Your task to perform on an android device: Open calendar and show me the fourth week of next month Image 0: 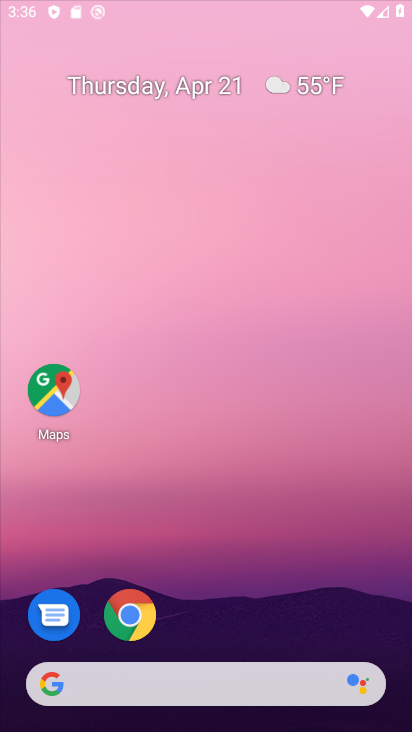
Step 0: drag from (212, 1) to (257, 4)
Your task to perform on an android device: Open calendar and show me the fourth week of next month Image 1: 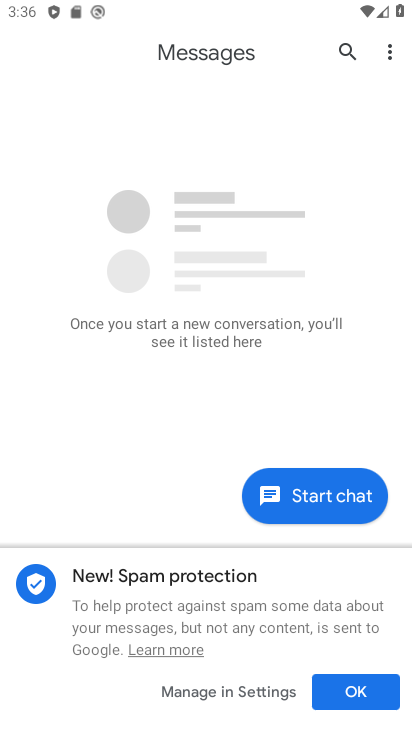
Step 1: press back button
Your task to perform on an android device: Open calendar and show me the fourth week of next month Image 2: 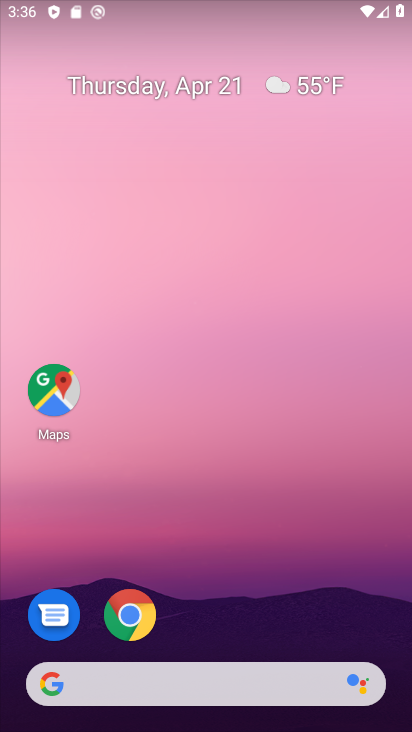
Step 2: drag from (308, 561) to (183, 57)
Your task to perform on an android device: Open calendar and show me the fourth week of next month Image 3: 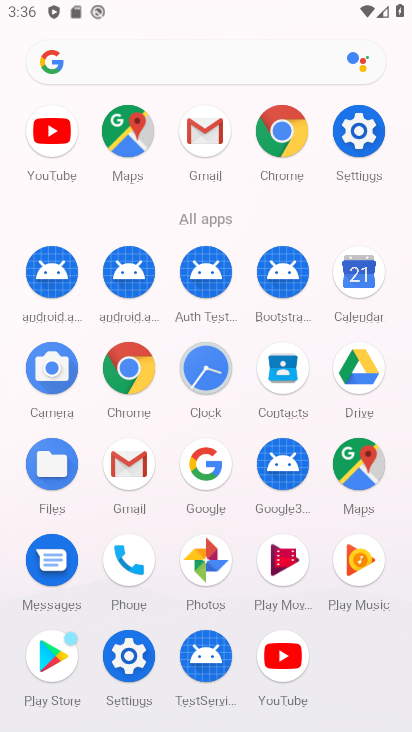
Step 3: click (362, 272)
Your task to perform on an android device: Open calendar and show me the fourth week of next month Image 4: 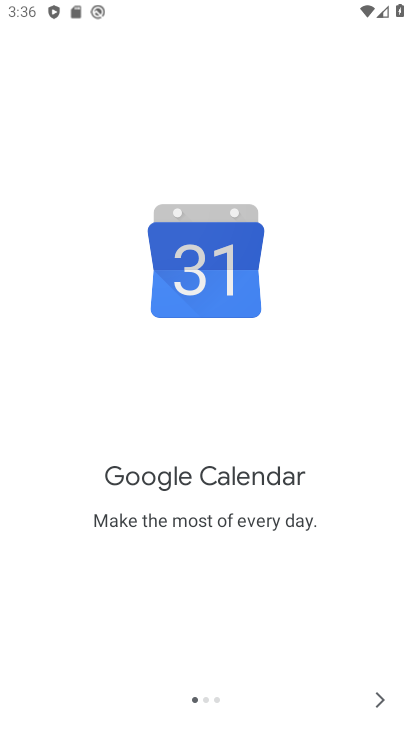
Step 4: click (394, 691)
Your task to perform on an android device: Open calendar and show me the fourth week of next month Image 5: 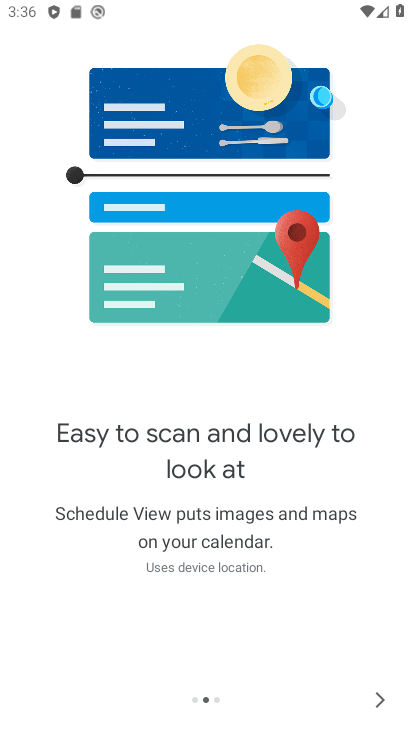
Step 5: click (391, 693)
Your task to perform on an android device: Open calendar and show me the fourth week of next month Image 6: 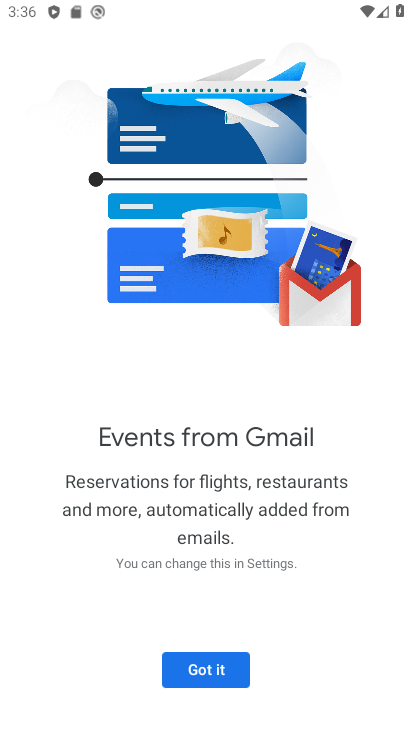
Step 6: click (212, 676)
Your task to perform on an android device: Open calendar and show me the fourth week of next month Image 7: 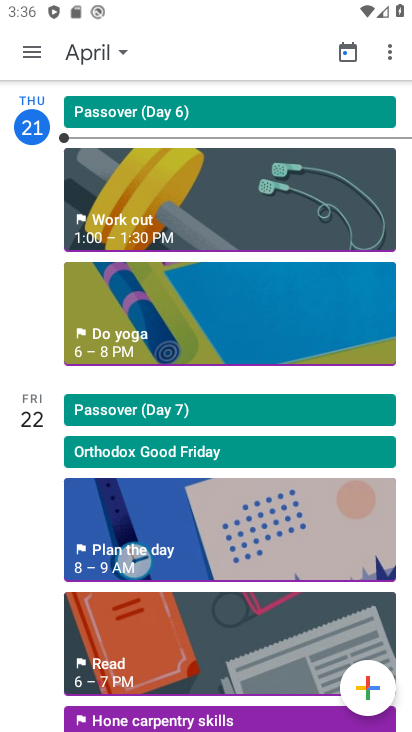
Step 7: click (84, 68)
Your task to perform on an android device: Open calendar and show me the fourth week of next month Image 8: 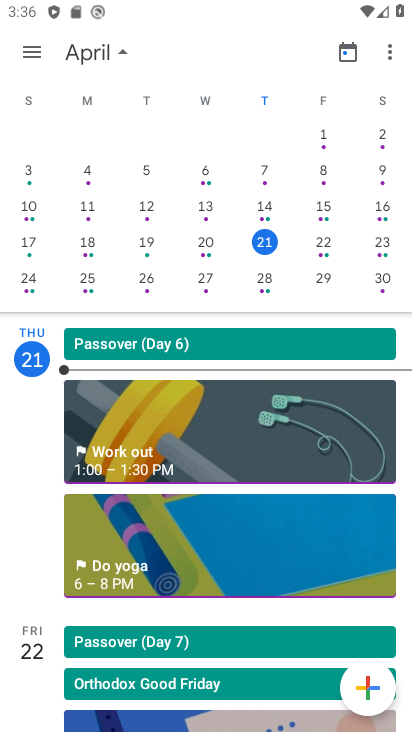
Step 8: drag from (248, 187) to (3, 108)
Your task to perform on an android device: Open calendar and show me the fourth week of next month Image 9: 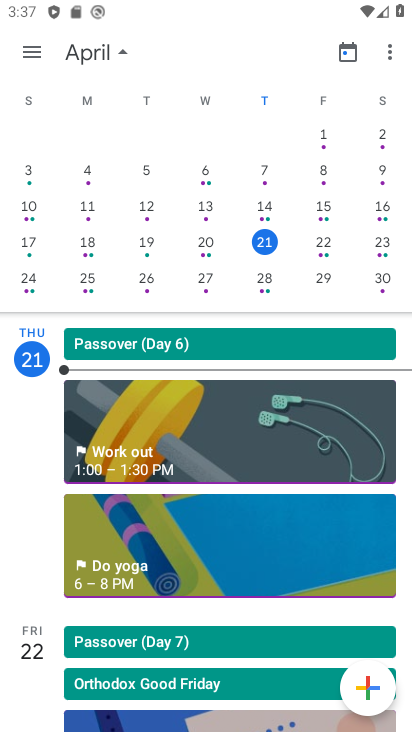
Step 9: drag from (312, 192) to (9, 145)
Your task to perform on an android device: Open calendar and show me the fourth week of next month Image 10: 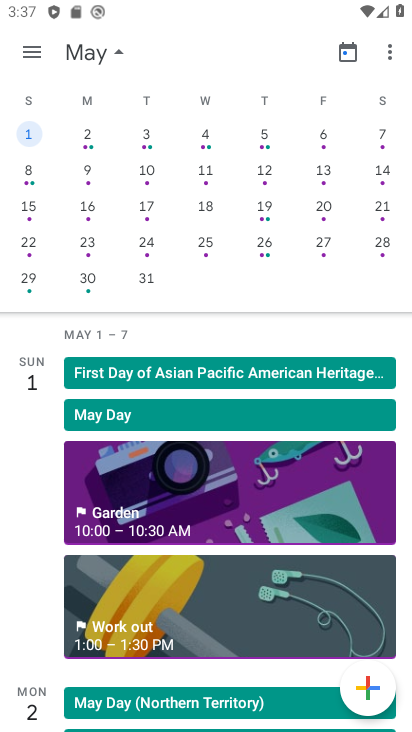
Step 10: click (27, 240)
Your task to perform on an android device: Open calendar and show me the fourth week of next month Image 11: 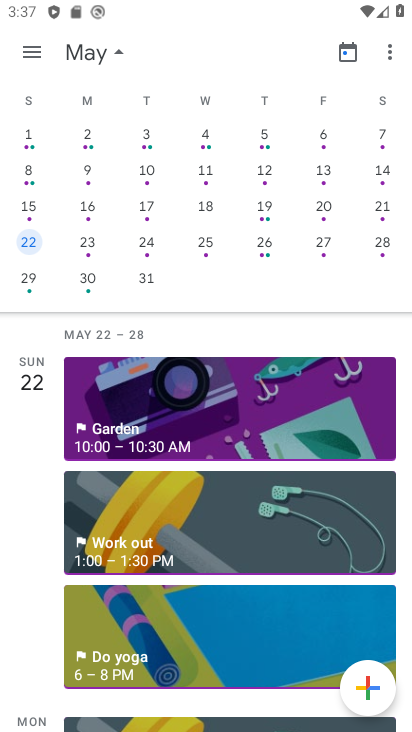
Step 11: click (26, 64)
Your task to perform on an android device: Open calendar and show me the fourth week of next month Image 12: 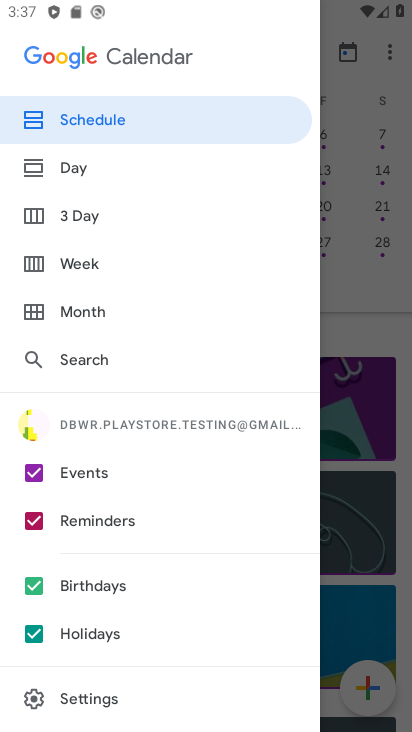
Step 12: click (102, 268)
Your task to perform on an android device: Open calendar and show me the fourth week of next month Image 13: 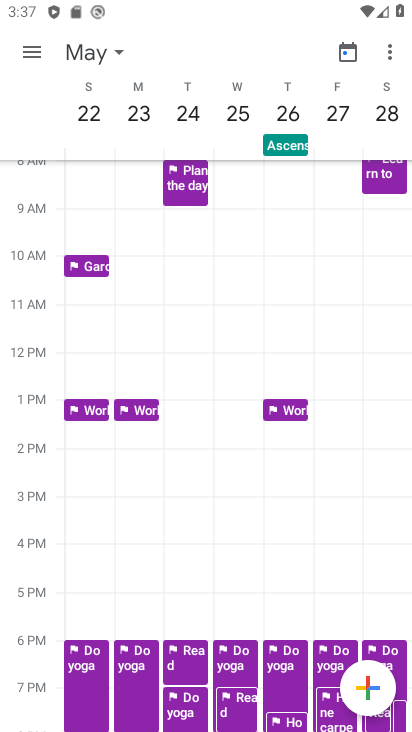
Step 13: task complete